Your task to perform on an android device: manage bookmarks in the chrome app Image 0: 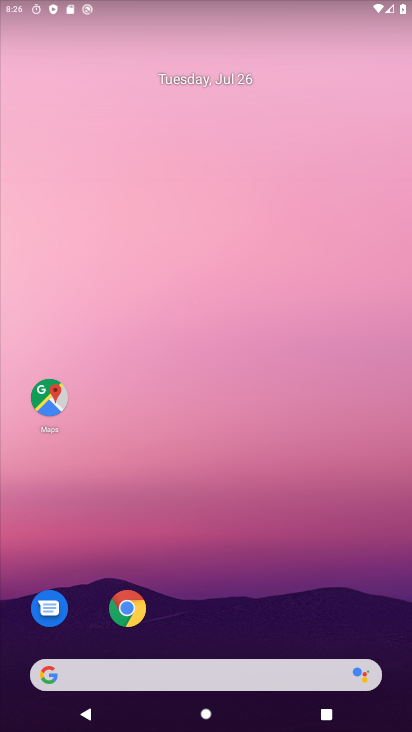
Step 0: drag from (289, 659) to (348, 59)
Your task to perform on an android device: manage bookmarks in the chrome app Image 1: 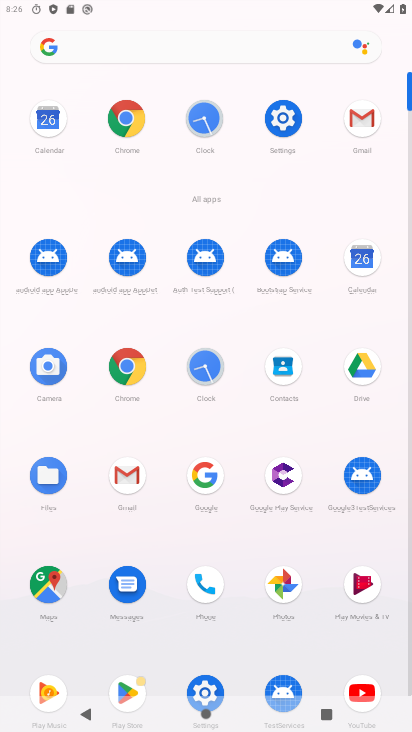
Step 1: click (123, 360)
Your task to perform on an android device: manage bookmarks in the chrome app Image 2: 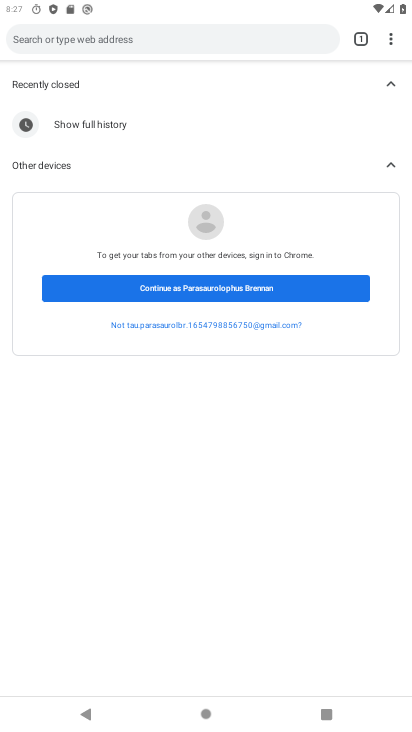
Step 2: click (394, 39)
Your task to perform on an android device: manage bookmarks in the chrome app Image 3: 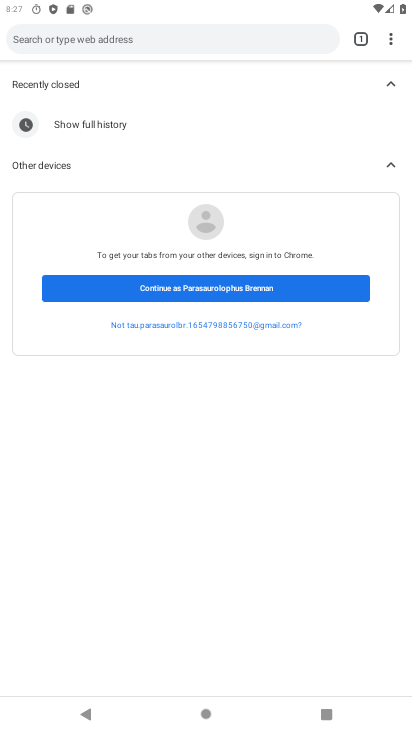
Step 3: task complete